Your task to perform on an android device: Go to CNN.com Image 0: 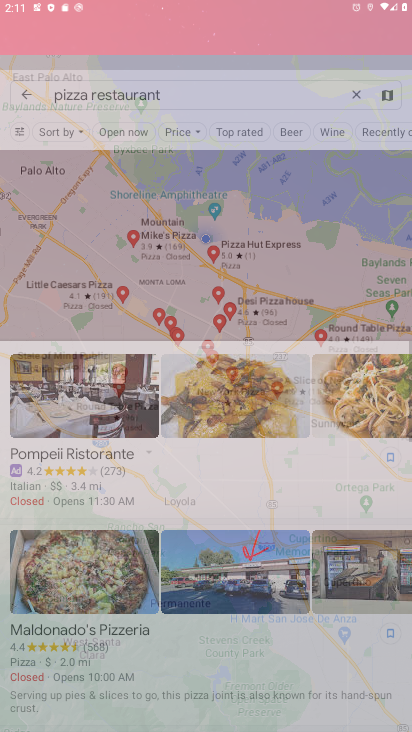
Step 0: drag from (214, 545) to (235, 169)
Your task to perform on an android device: Go to CNN.com Image 1: 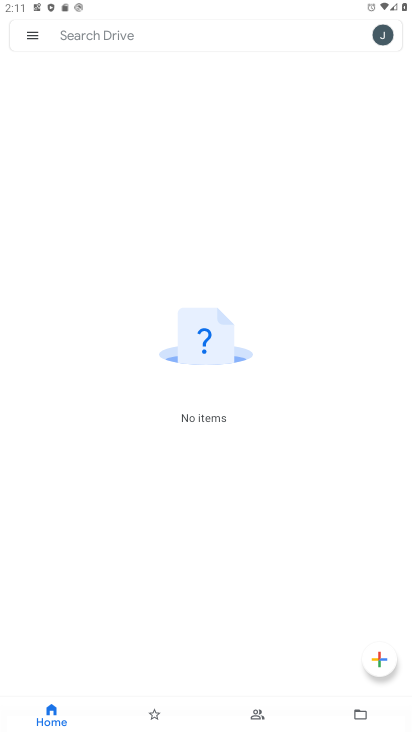
Step 1: press home button
Your task to perform on an android device: Go to CNN.com Image 2: 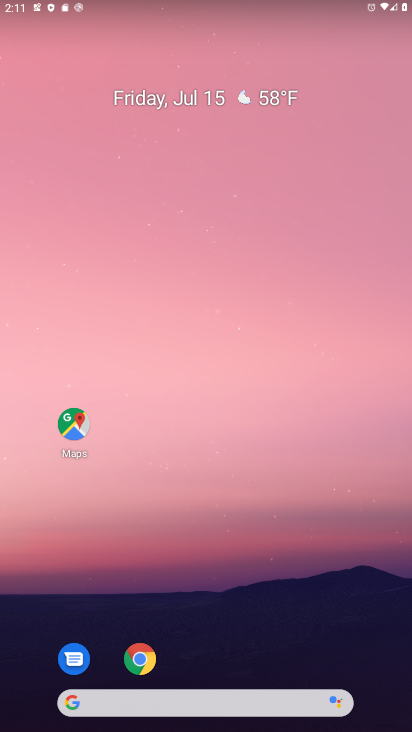
Step 2: click (141, 662)
Your task to perform on an android device: Go to CNN.com Image 3: 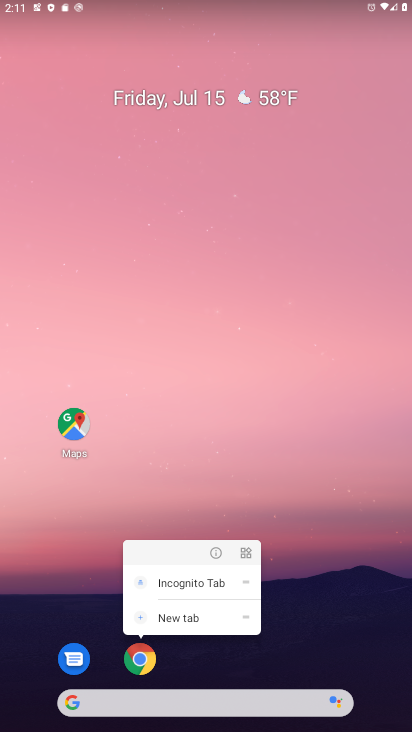
Step 3: click (149, 657)
Your task to perform on an android device: Go to CNN.com Image 4: 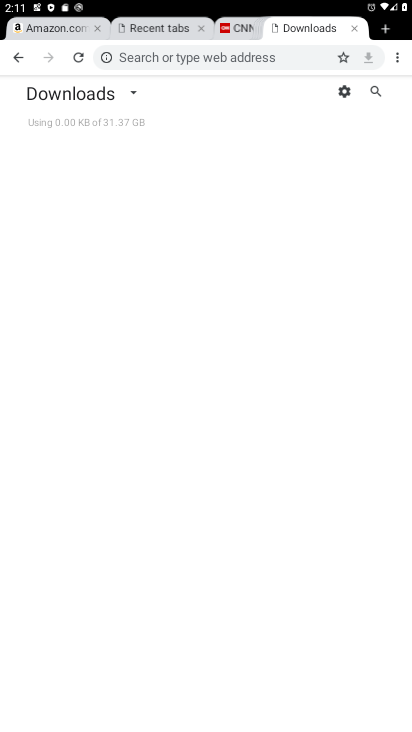
Step 4: click (396, 59)
Your task to perform on an android device: Go to CNN.com Image 5: 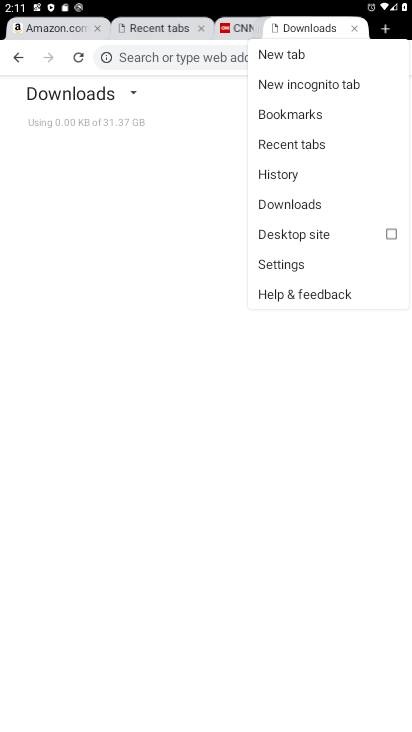
Step 5: click (279, 53)
Your task to perform on an android device: Go to CNN.com Image 6: 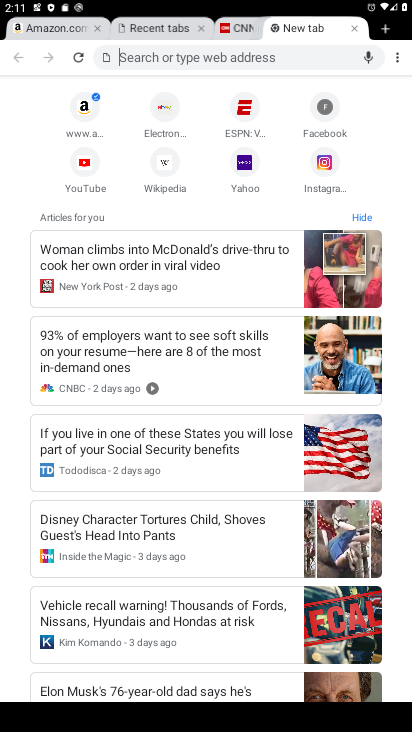
Step 6: click (220, 63)
Your task to perform on an android device: Go to CNN.com Image 7: 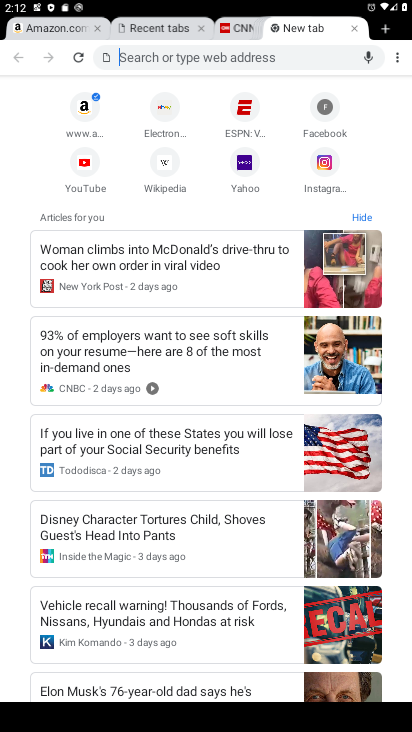
Step 7: type "CNN.com"
Your task to perform on an android device: Go to CNN.com Image 8: 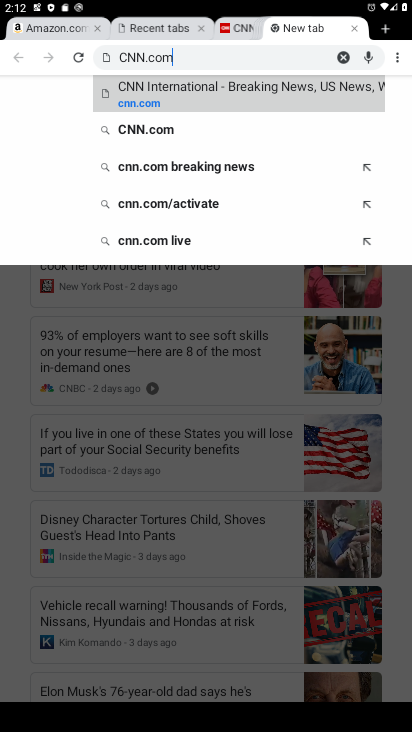
Step 8: click (164, 88)
Your task to perform on an android device: Go to CNN.com Image 9: 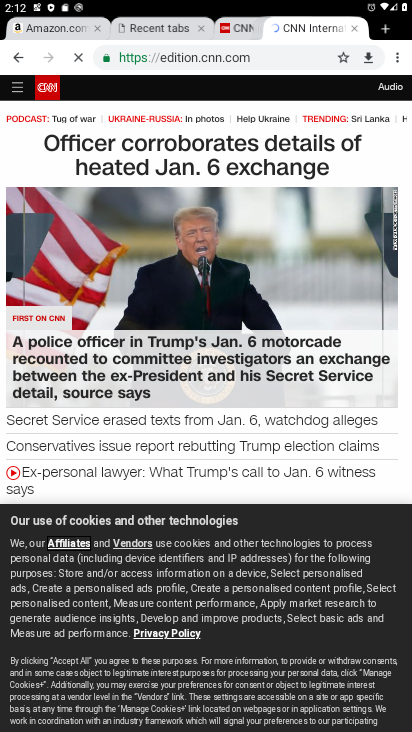
Step 9: task complete